Your task to perform on an android device: Go to Android settings Image 0: 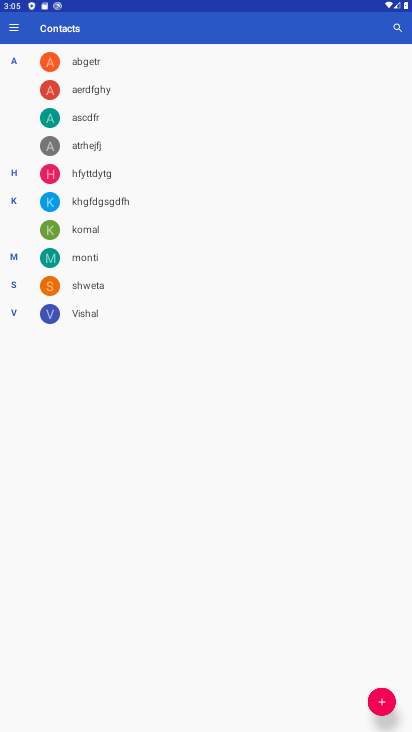
Step 0: press home button
Your task to perform on an android device: Go to Android settings Image 1: 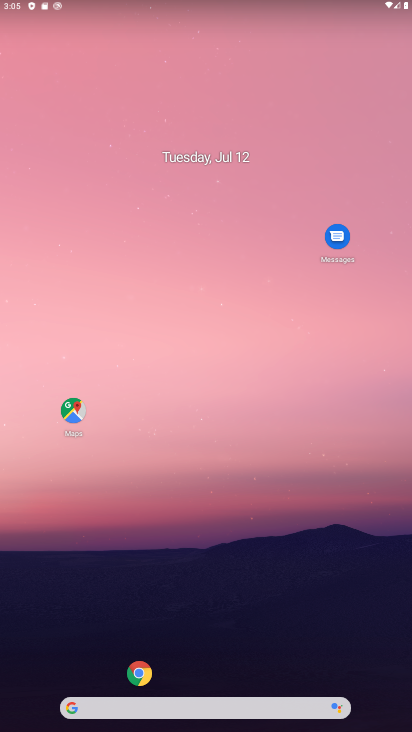
Step 1: drag from (30, 654) to (274, 21)
Your task to perform on an android device: Go to Android settings Image 2: 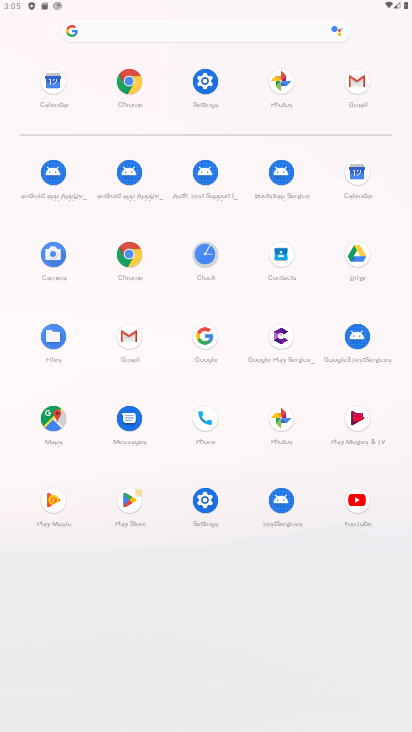
Step 2: click (215, 504)
Your task to perform on an android device: Go to Android settings Image 3: 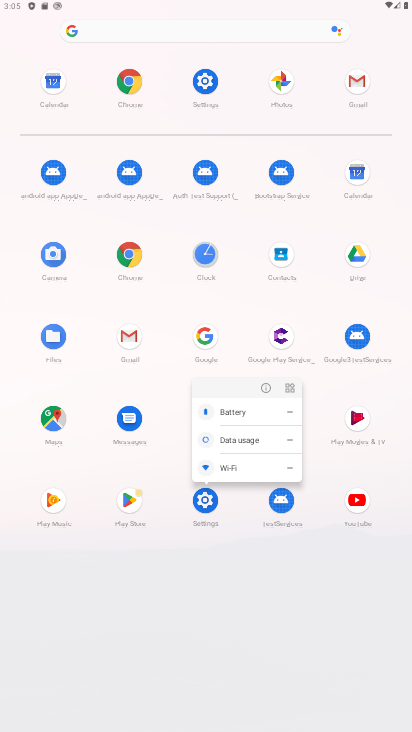
Step 3: click (214, 505)
Your task to perform on an android device: Go to Android settings Image 4: 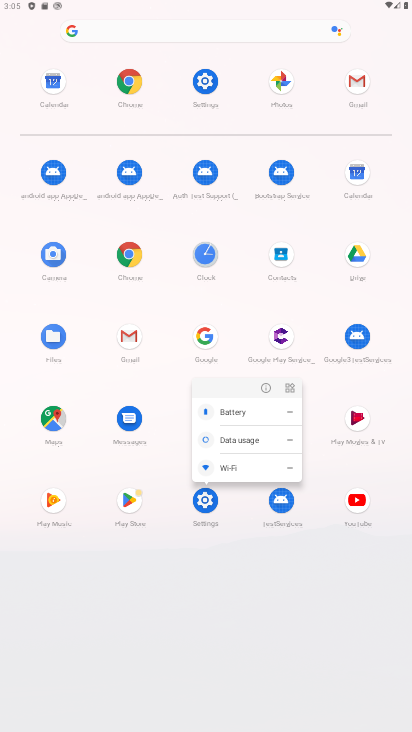
Step 4: click (208, 500)
Your task to perform on an android device: Go to Android settings Image 5: 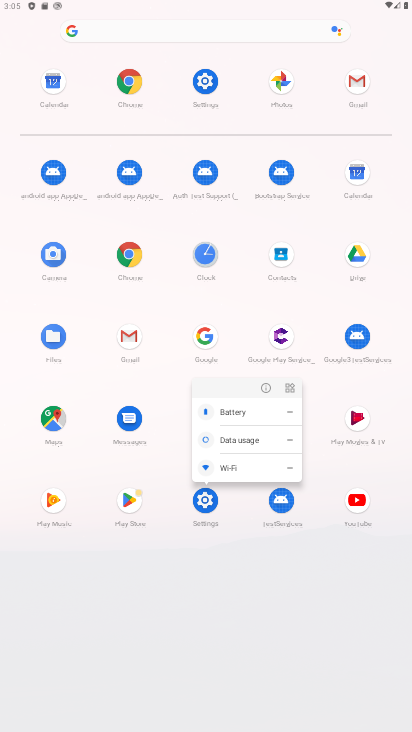
Step 5: click (196, 505)
Your task to perform on an android device: Go to Android settings Image 6: 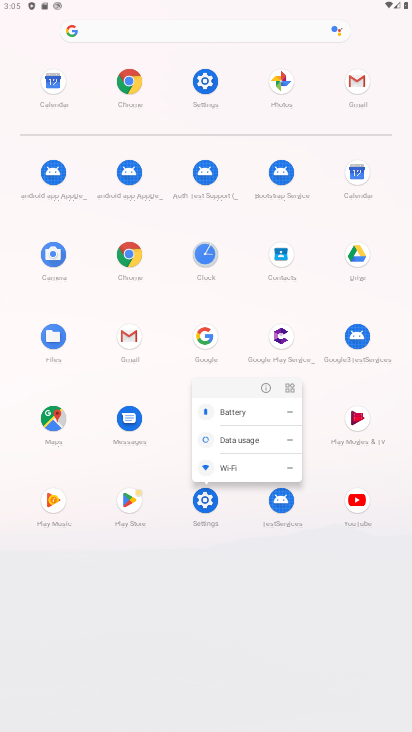
Step 6: click (196, 502)
Your task to perform on an android device: Go to Android settings Image 7: 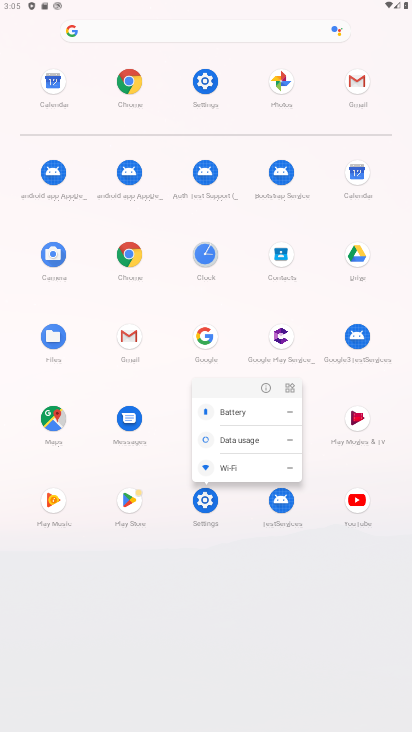
Step 7: click (201, 484)
Your task to perform on an android device: Go to Android settings Image 8: 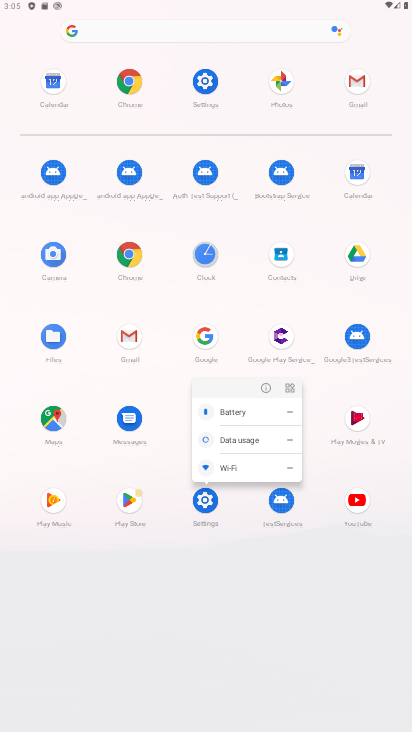
Step 8: task complete